Your task to perform on an android device: Open Youtube and go to the subscriptions tab Image 0: 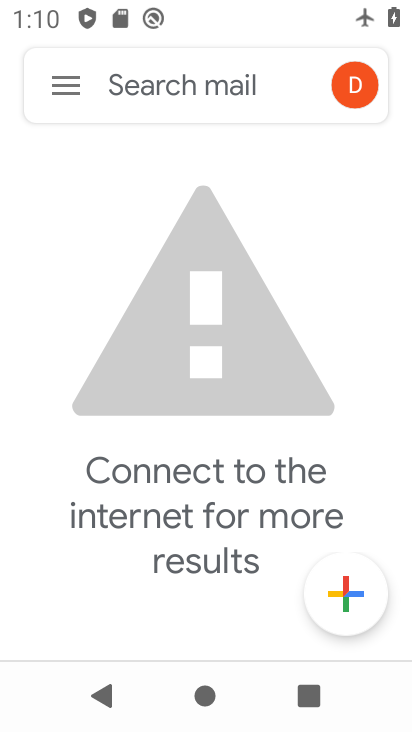
Step 0: drag from (288, 4) to (285, 595)
Your task to perform on an android device: Open Youtube and go to the subscriptions tab Image 1: 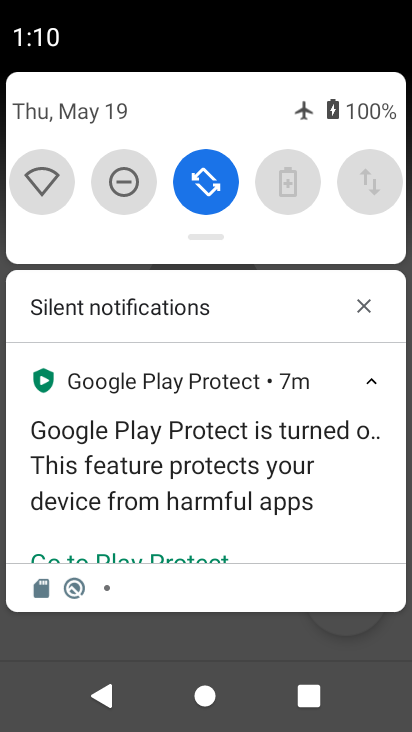
Step 1: drag from (264, 233) to (256, 621)
Your task to perform on an android device: Open Youtube and go to the subscriptions tab Image 2: 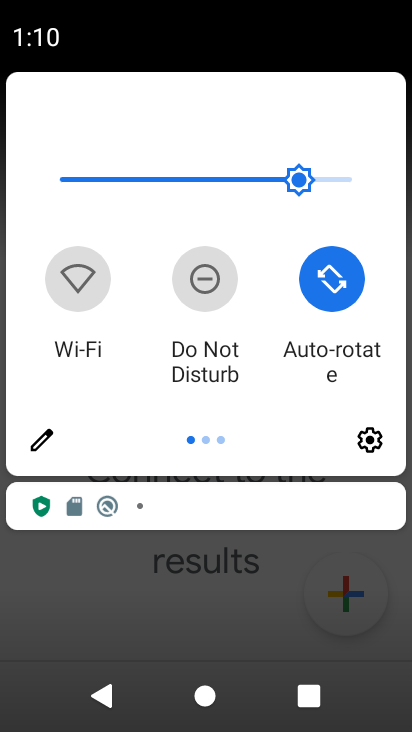
Step 2: drag from (386, 369) to (30, 347)
Your task to perform on an android device: Open Youtube and go to the subscriptions tab Image 3: 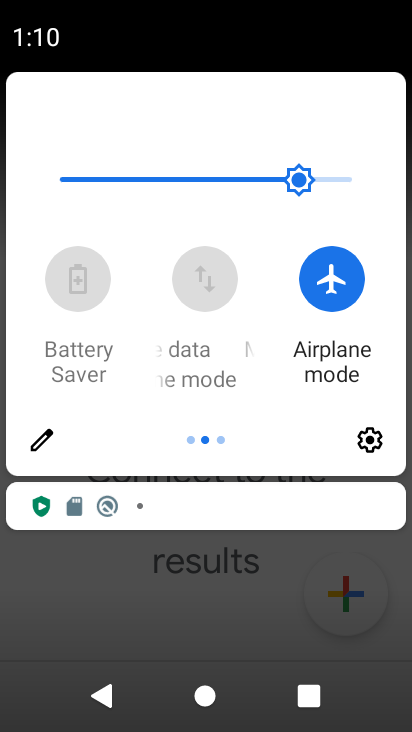
Step 3: click (344, 281)
Your task to perform on an android device: Open Youtube and go to the subscriptions tab Image 4: 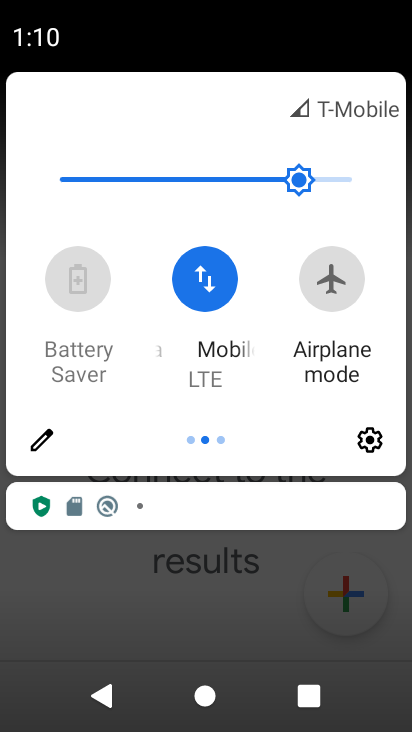
Step 4: click (258, 566)
Your task to perform on an android device: Open Youtube and go to the subscriptions tab Image 5: 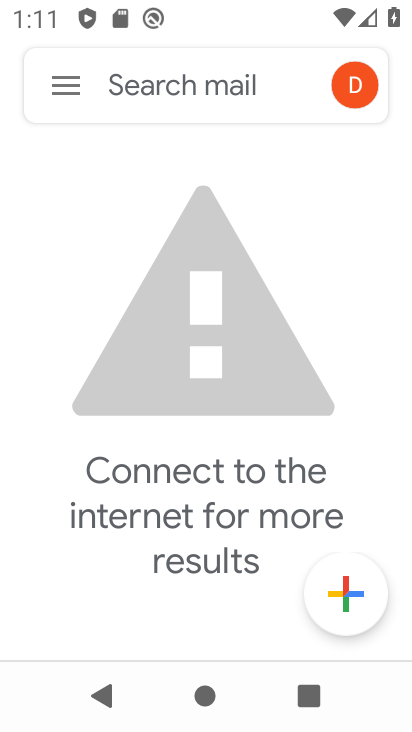
Step 5: press home button
Your task to perform on an android device: Open Youtube and go to the subscriptions tab Image 6: 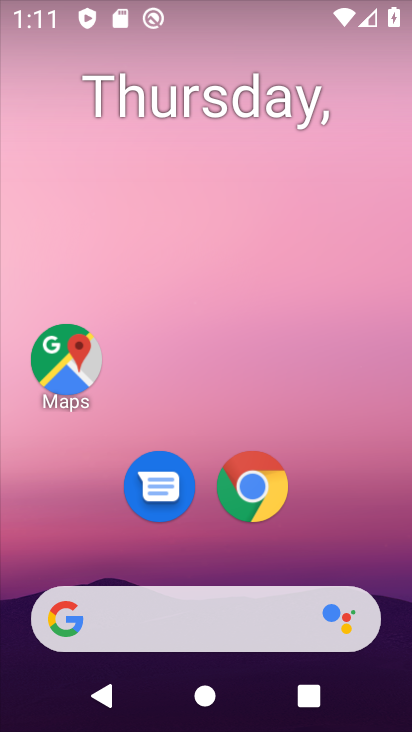
Step 6: drag from (403, 592) to (325, 140)
Your task to perform on an android device: Open Youtube and go to the subscriptions tab Image 7: 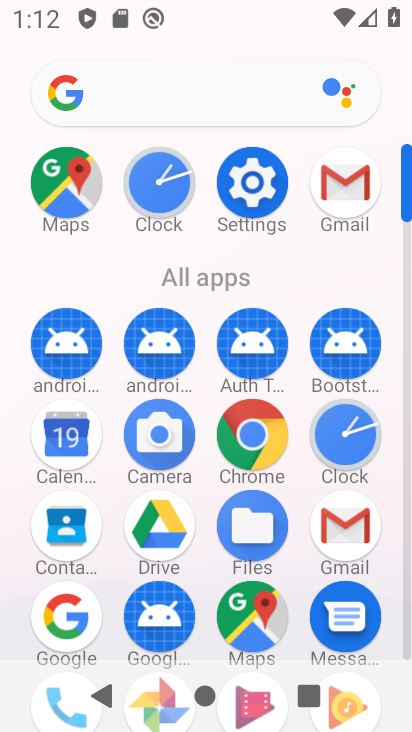
Step 7: click (404, 655)
Your task to perform on an android device: Open Youtube and go to the subscriptions tab Image 8: 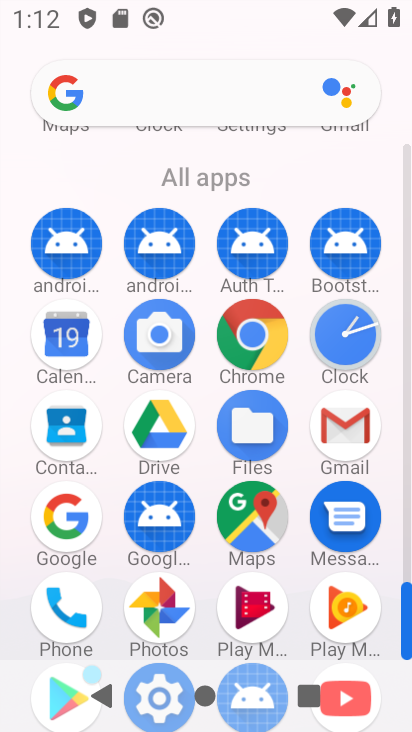
Step 8: drag from (393, 560) to (380, 375)
Your task to perform on an android device: Open Youtube and go to the subscriptions tab Image 9: 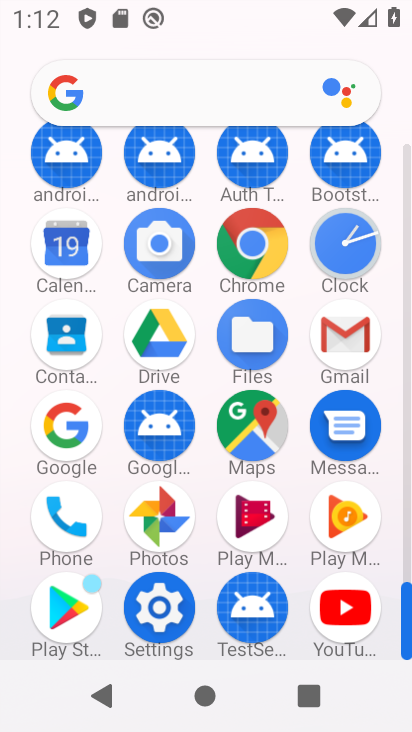
Step 9: click (356, 596)
Your task to perform on an android device: Open Youtube and go to the subscriptions tab Image 10: 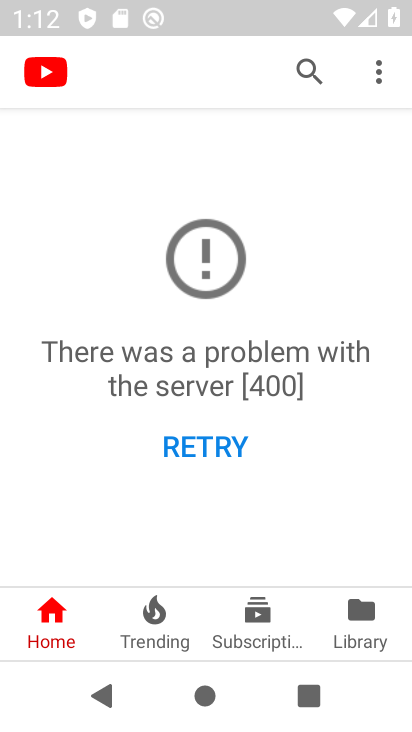
Step 10: click (255, 607)
Your task to perform on an android device: Open Youtube and go to the subscriptions tab Image 11: 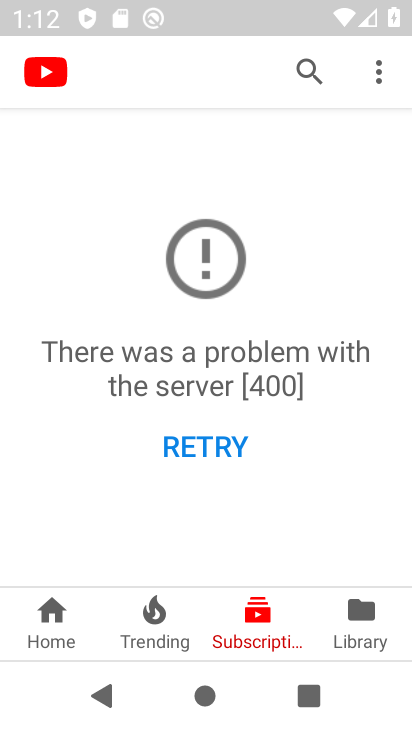
Step 11: task complete